Your task to perform on an android device: turn off notifications in google photos Image 0: 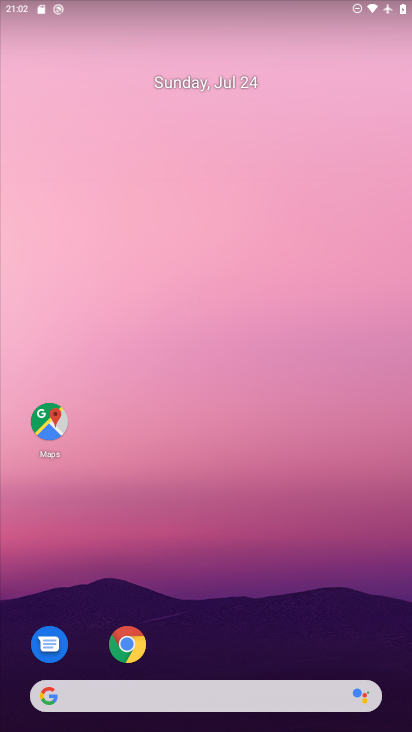
Step 0: drag from (386, 652) to (325, 169)
Your task to perform on an android device: turn off notifications in google photos Image 1: 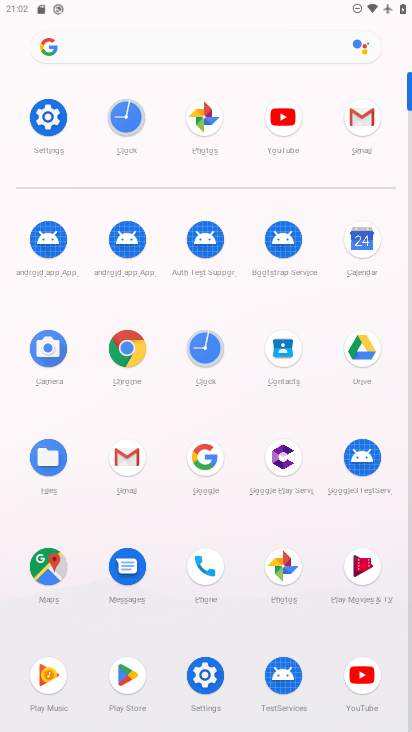
Step 1: click (283, 570)
Your task to perform on an android device: turn off notifications in google photos Image 2: 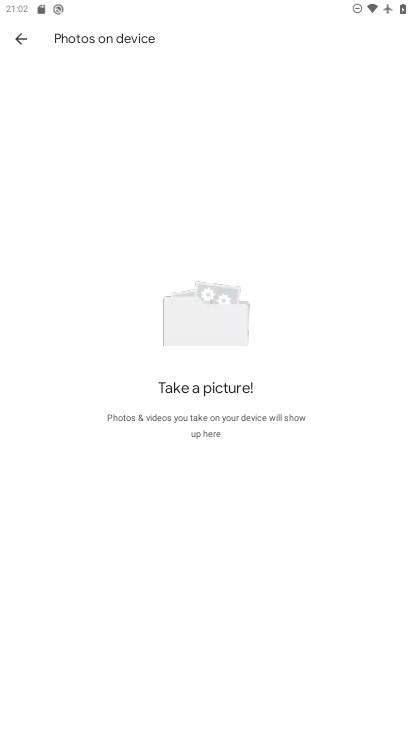
Step 2: press back button
Your task to perform on an android device: turn off notifications in google photos Image 3: 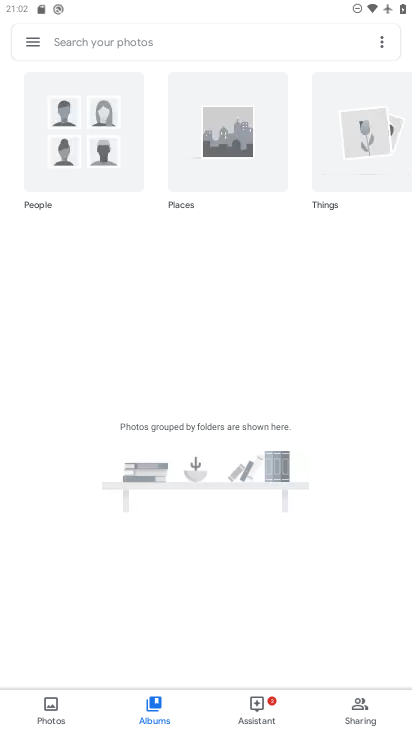
Step 3: click (34, 37)
Your task to perform on an android device: turn off notifications in google photos Image 4: 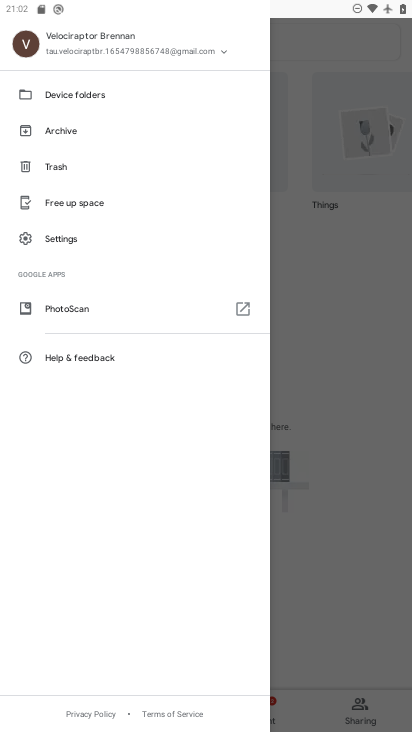
Step 4: click (61, 231)
Your task to perform on an android device: turn off notifications in google photos Image 5: 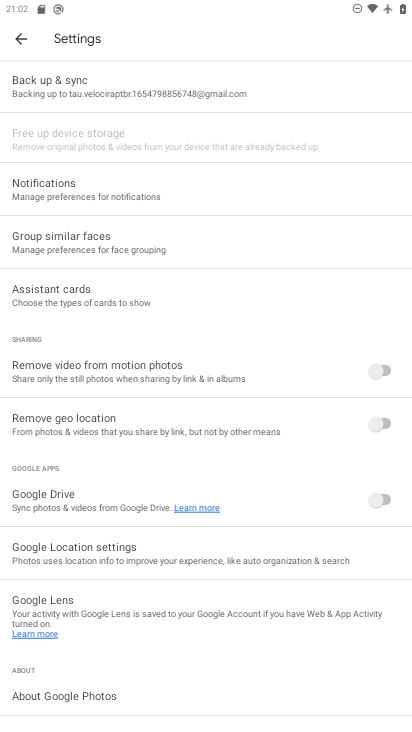
Step 5: click (37, 185)
Your task to perform on an android device: turn off notifications in google photos Image 6: 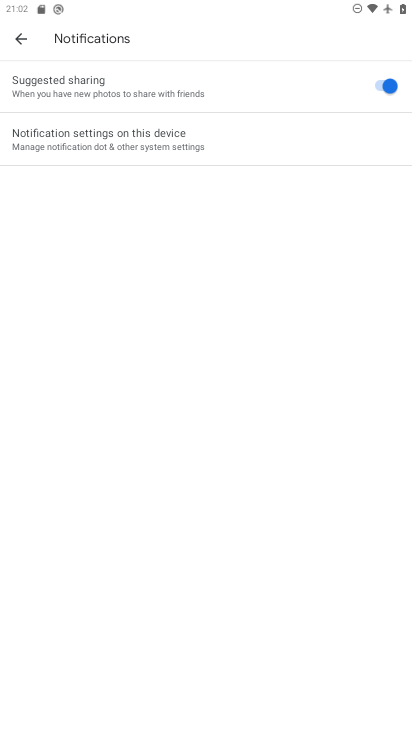
Step 6: click (113, 132)
Your task to perform on an android device: turn off notifications in google photos Image 7: 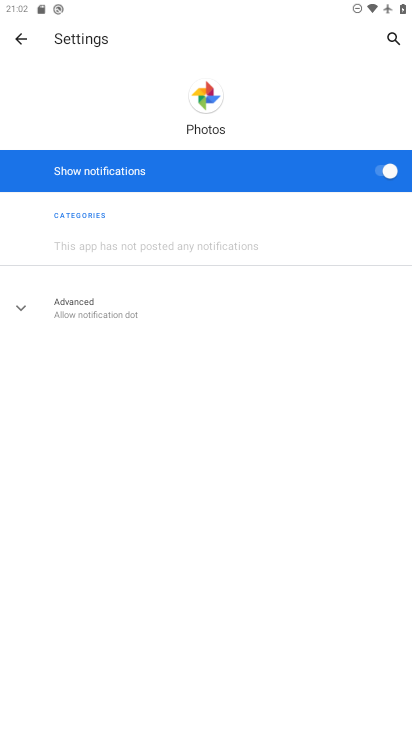
Step 7: click (376, 171)
Your task to perform on an android device: turn off notifications in google photos Image 8: 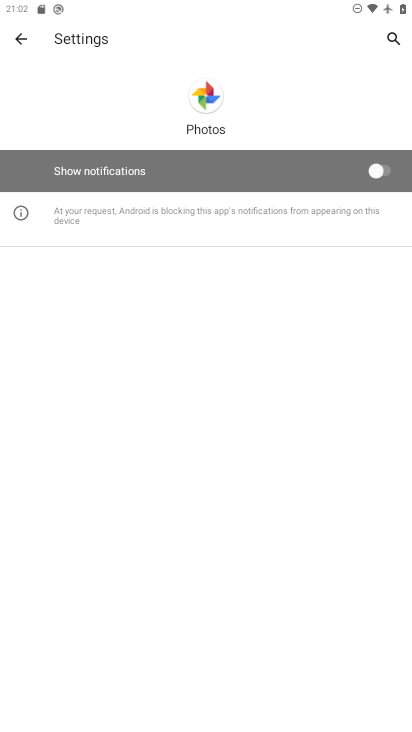
Step 8: task complete